Your task to perform on an android device: refresh tabs in the chrome app Image 0: 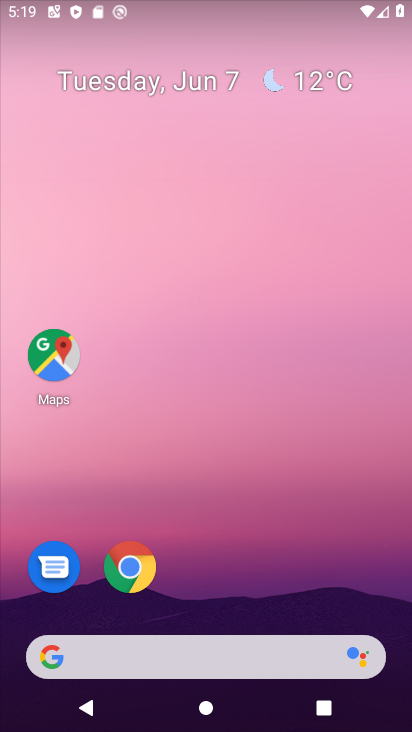
Step 0: drag from (249, 533) to (179, 31)
Your task to perform on an android device: refresh tabs in the chrome app Image 1: 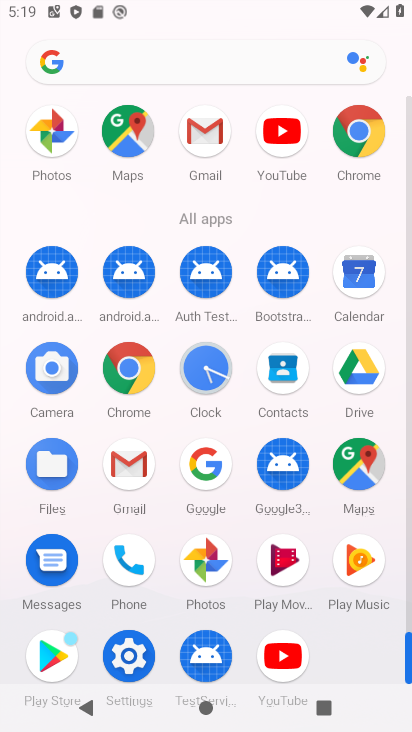
Step 1: drag from (14, 590) to (19, 283)
Your task to perform on an android device: refresh tabs in the chrome app Image 2: 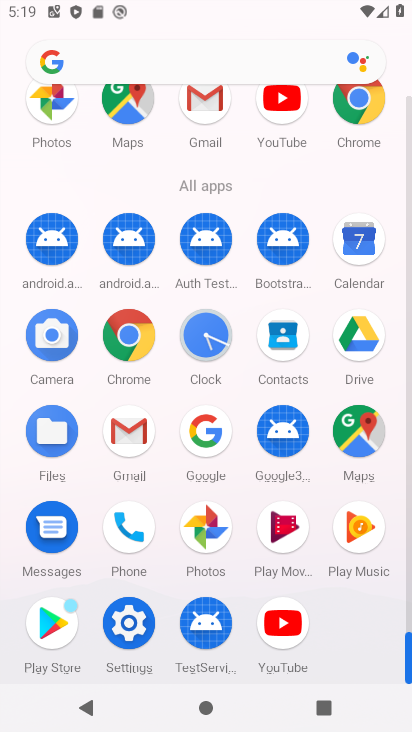
Step 2: click (127, 333)
Your task to perform on an android device: refresh tabs in the chrome app Image 3: 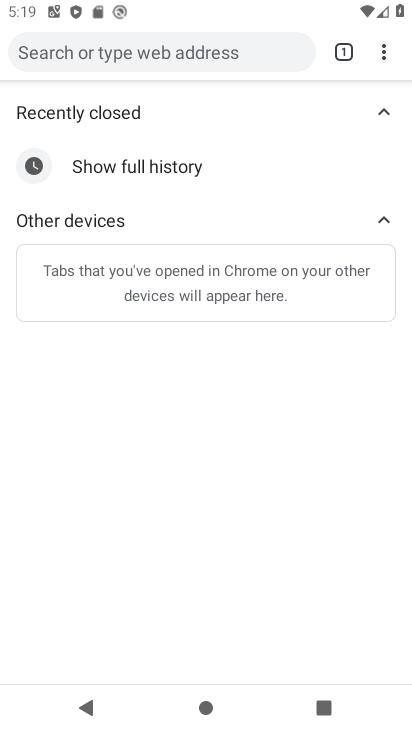
Step 3: click (383, 51)
Your task to perform on an android device: refresh tabs in the chrome app Image 4: 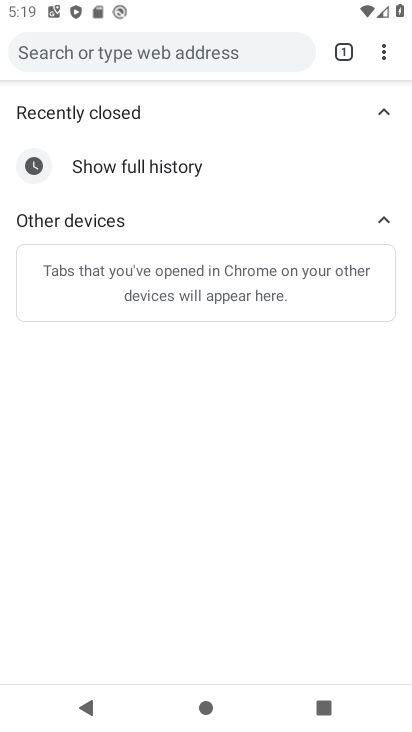
Step 4: task complete